Your task to perform on an android device: turn vacation reply on in the gmail app Image 0: 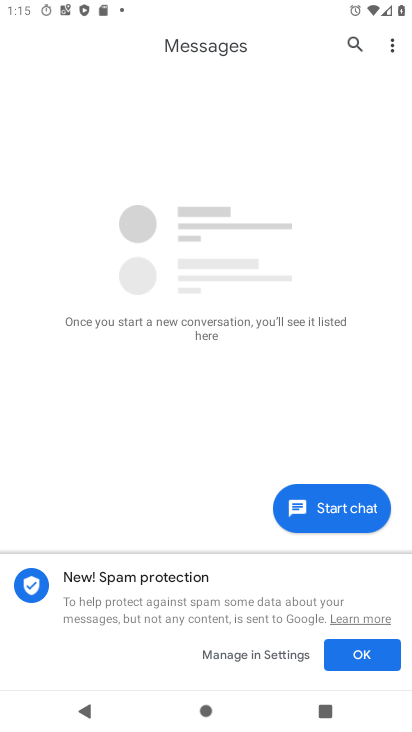
Step 0: press home button
Your task to perform on an android device: turn vacation reply on in the gmail app Image 1: 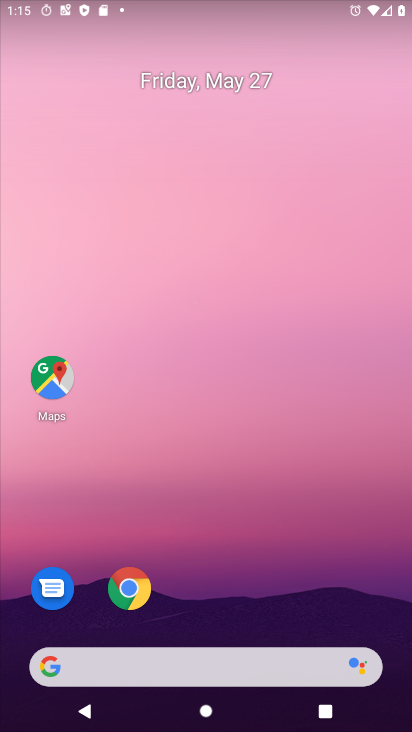
Step 1: drag from (216, 623) to (223, 20)
Your task to perform on an android device: turn vacation reply on in the gmail app Image 2: 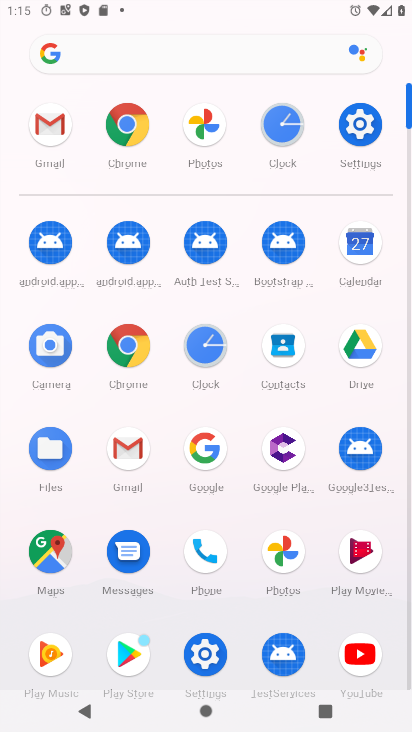
Step 2: click (129, 442)
Your task to perform on an android device: turn vacation reply on in the gmail app Image 3: 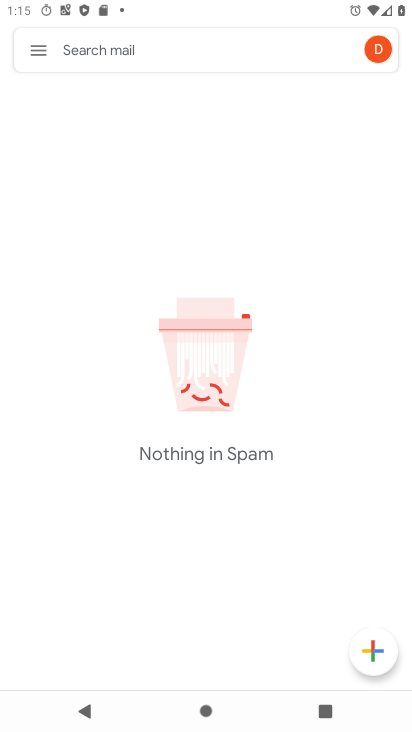
Step 3: press home button
Your task to perform on an android device: turn vacation reply on in the gmail app Image 4: 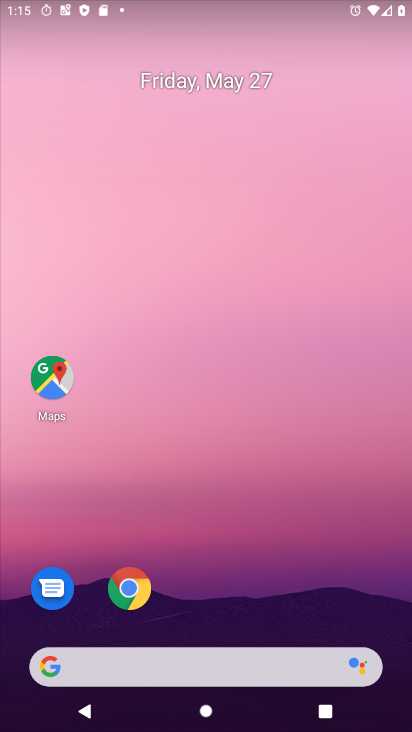
Step 4: drag from (227, 625) to (257, 13)
Your task to perform on an android device: turn vacation reply on in the gmail app Image 5: 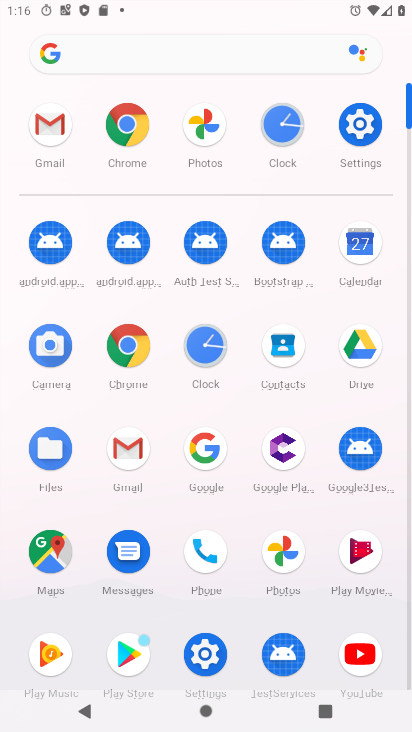
Step 5: click (46, 120)
Your task to perform on an android device: turn vacation reply on in the gmail app Image 6: 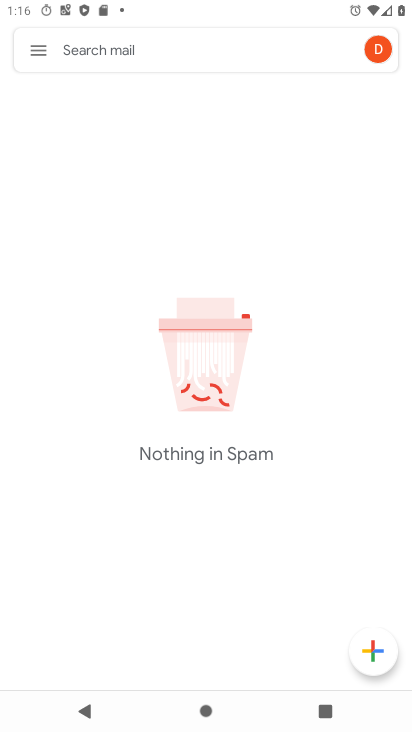
Step 6: click (35, 46)
Your task to perform on an android device: turn vacation reply on in the gmail app Image 7: 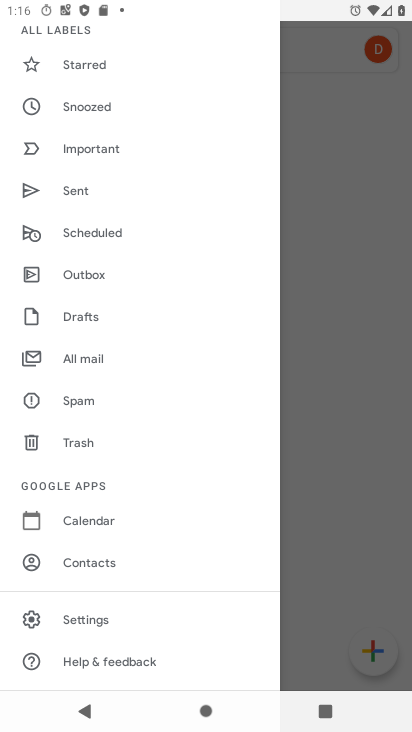
Step 7: click (115, 613)
Your task to perform on an android device: turn vacation reply on in the gmail app Image 8: 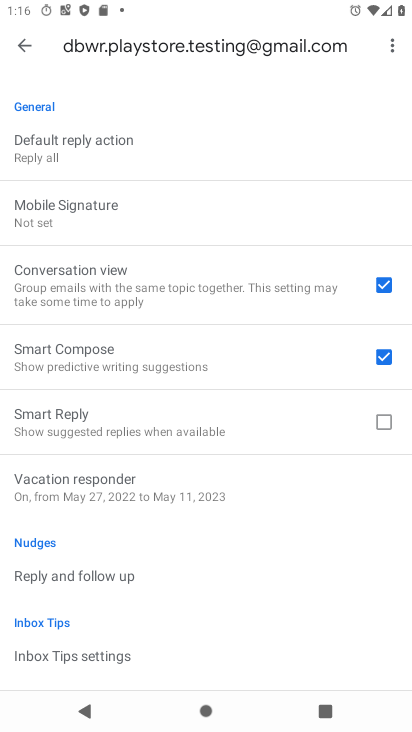
Step 8: click (148, 477)
Your task to perform on an android device: turn vacation reply on in the gmail app Image 9: 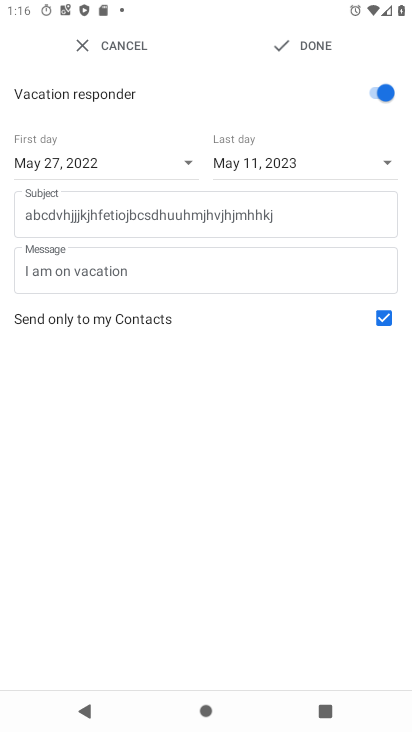
Step 9: task complete